Your task to perform on an android device: turn off smart reply in the gmail app Image 0: 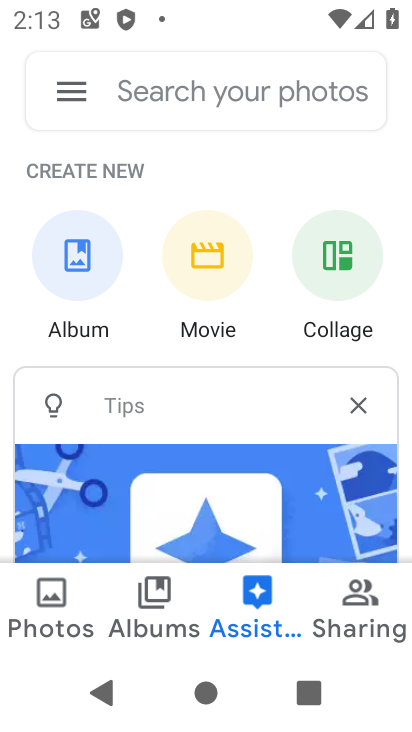
Step 0: task complete